Your task to perform on an android device: refresh tabs in the chrome app Image 0: 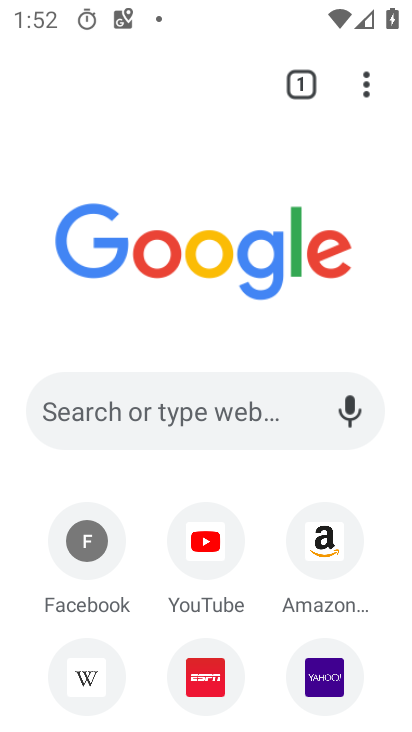
Step 0: click (366, 82)
Your task to perform on an android device: refresh tabs in the chrome app Image 1: 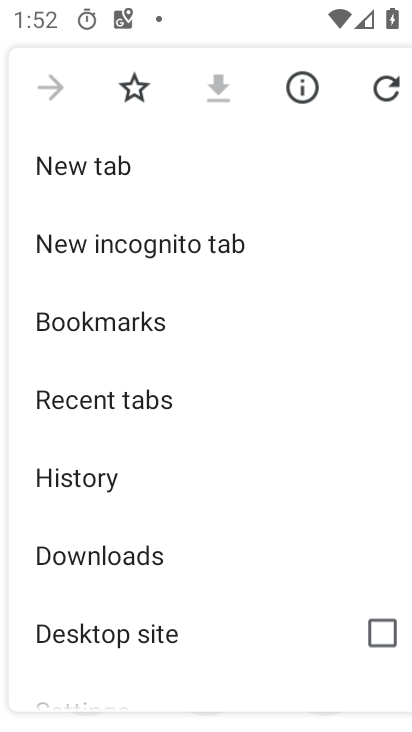
Step 1: click (386, 91)
Your task to perform on an android device: refresh tabs in the chrome app Image 2: 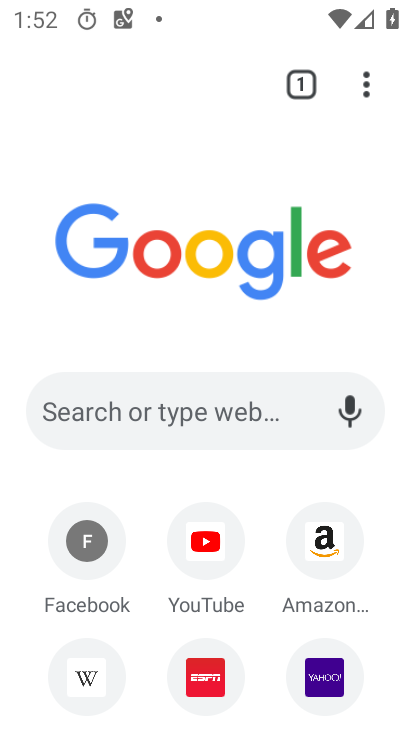
Step 2: task complete